Your task to perform on an android device: empty trash in the gmail app Image 0: 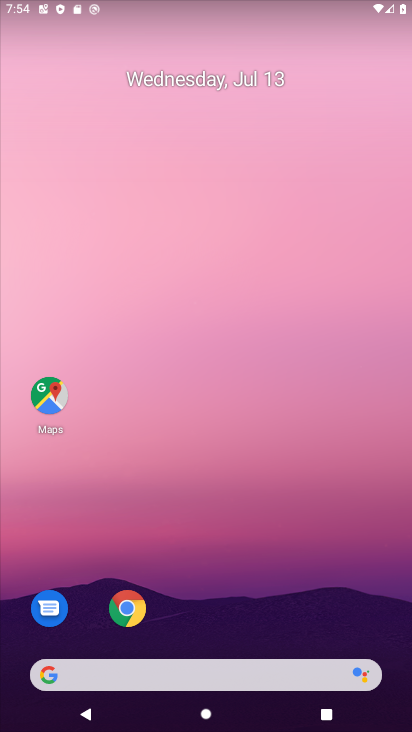
Step 0: drag from (224, 644) to (204, 51)
Your task to perform on an android device: empty trash in the gmail app Image 1: 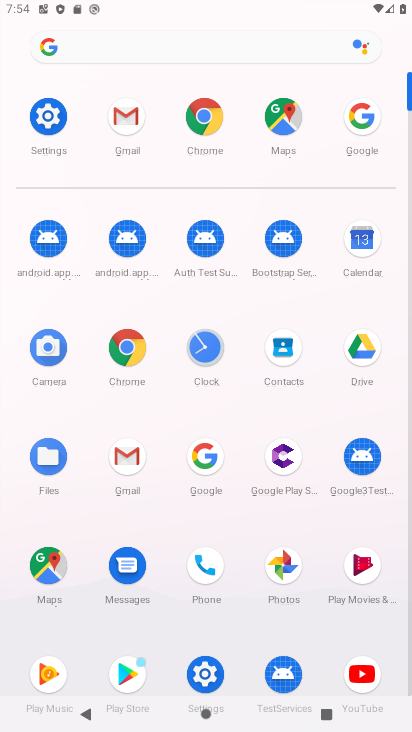
Step 1: click (128, 473)
Your task to perform on an android device: empty trash in the gmail app Image 2: 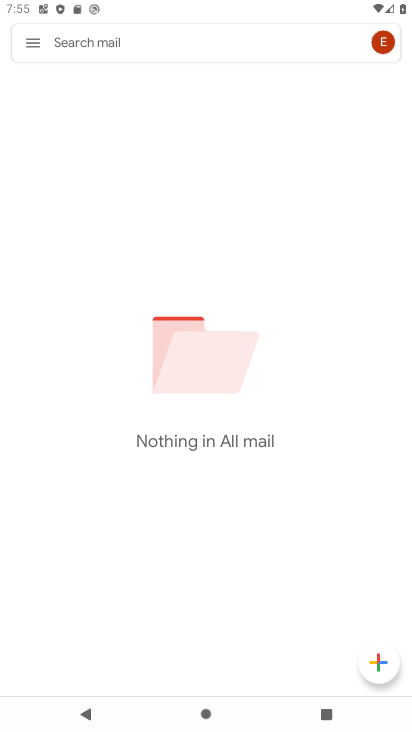
Step 2: click (29, 48)
Your task to perform on an android device: empty trash in the gmail app Image 3: 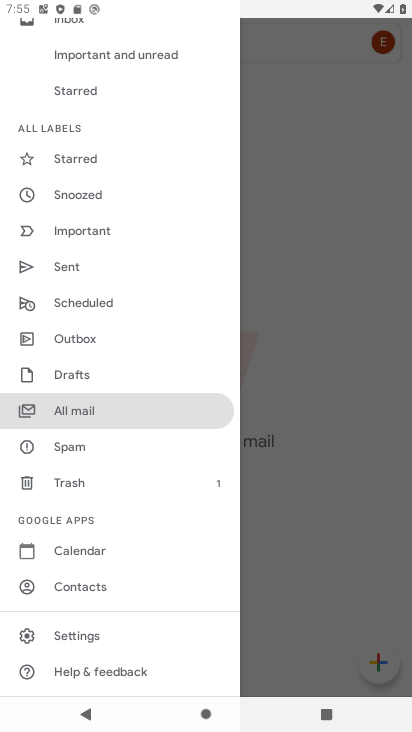
Step 3: click (104, 481)
Your task to perform on an android device: empty trash in the gmail app Image 4: 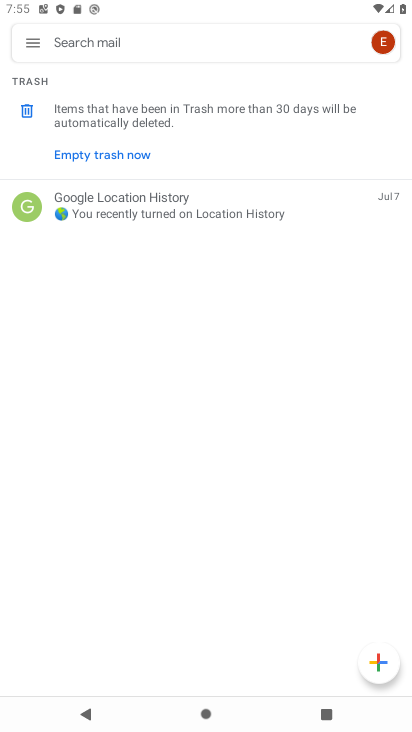
Step 4: click (94, 154)
Your task to perform on an android device: empty trash in the gmail app Image 5: 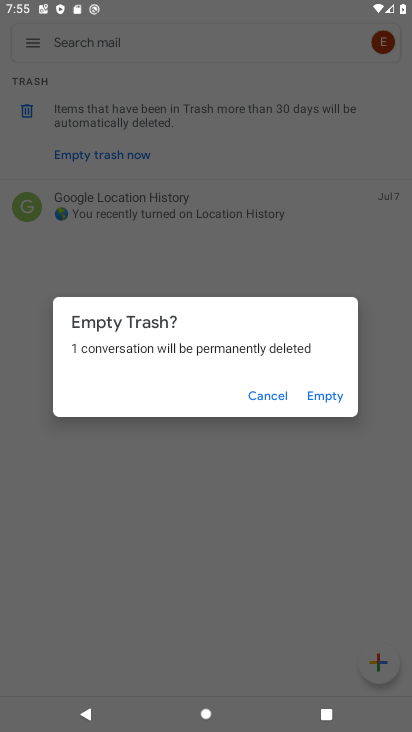
Step 5: click (317, 386)
Your task to perform on an android device: empty trash in the gmail app Image 6: 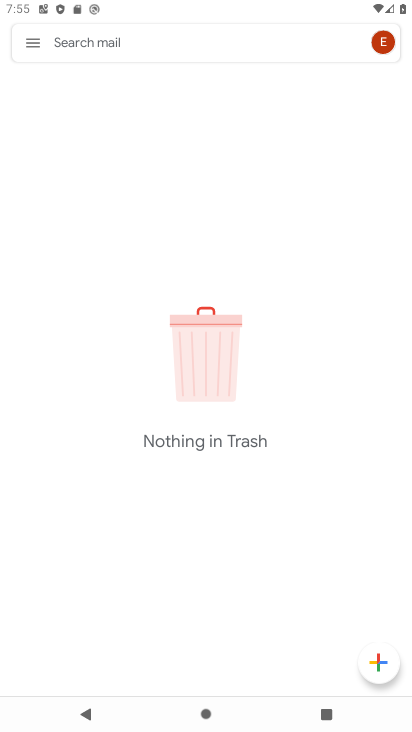
Step 6: task complete